Your task to perform on an android device: Open my contact list Image 0: 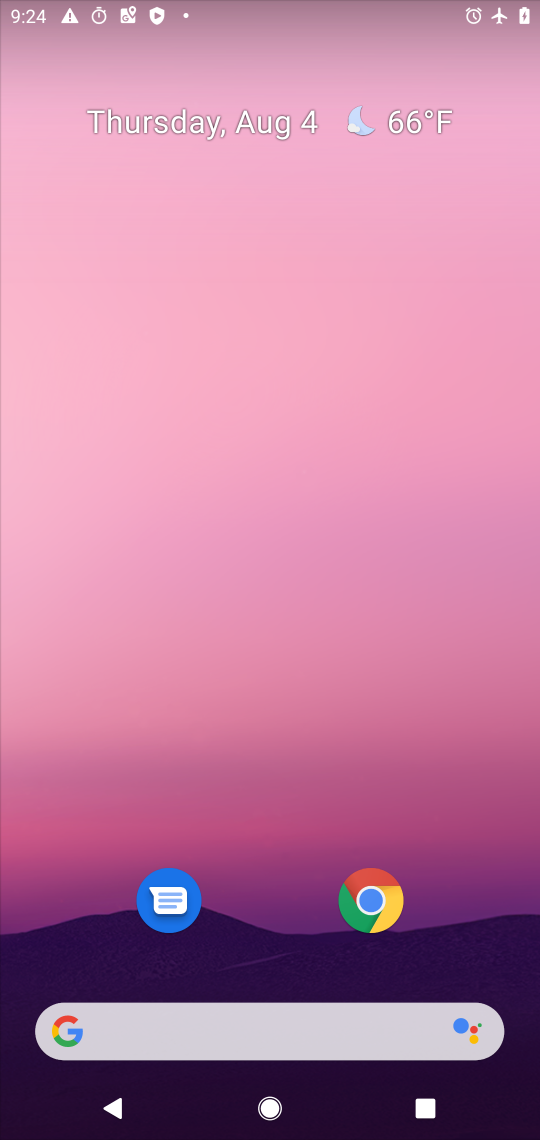
Step 0: drag from (239, 1022) to (333, 208)
Your task to perform on an android device: Open my contact list Image 1: 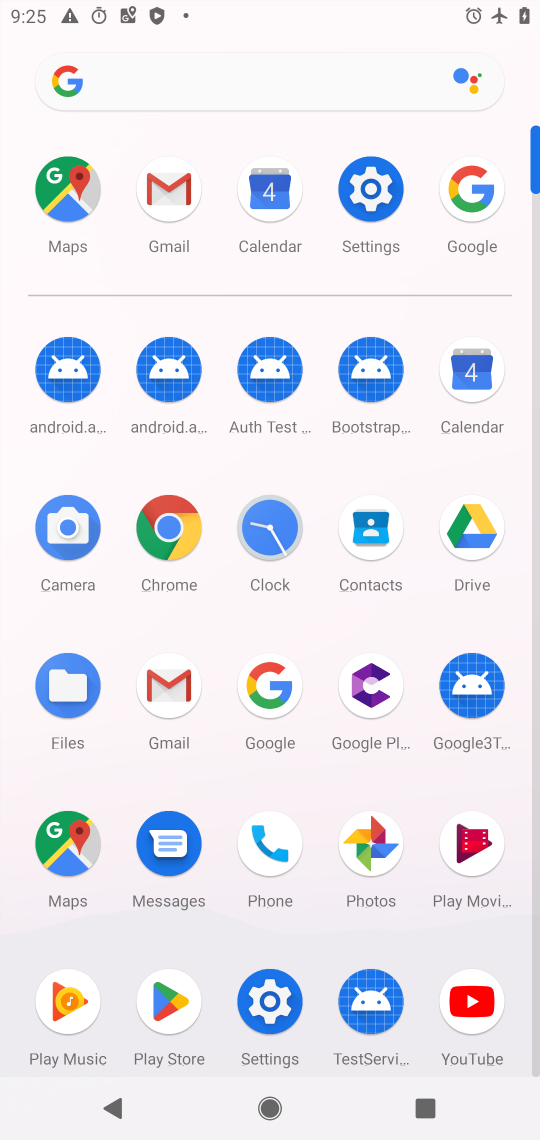
Step 1: click (366, 534)
Your task to perform on an android device: Open my contact list Image 2: 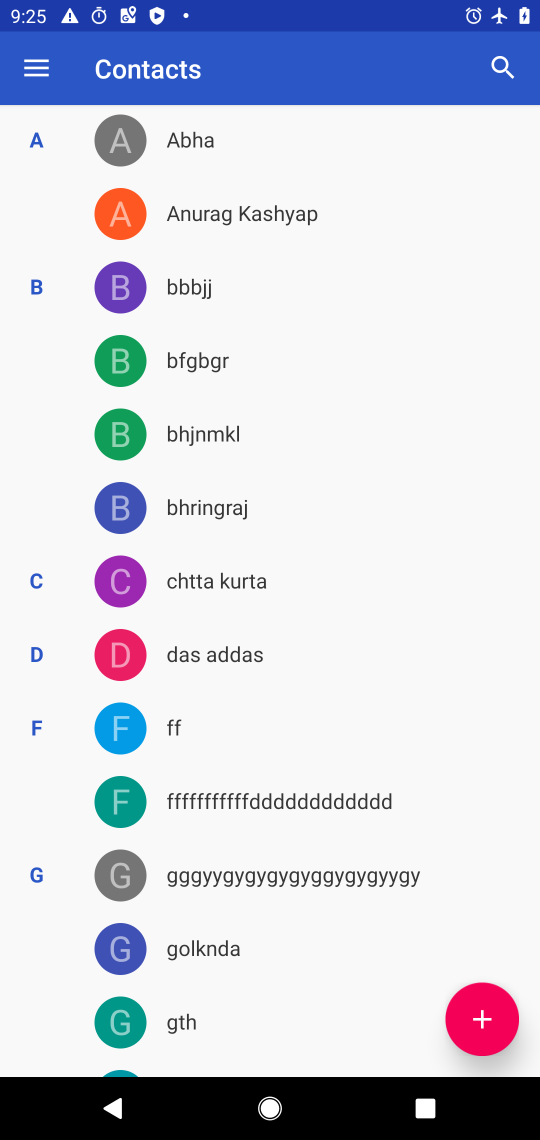
Step 2: task complete